Your task to perform on an android device: Open CNN.com Image 0: 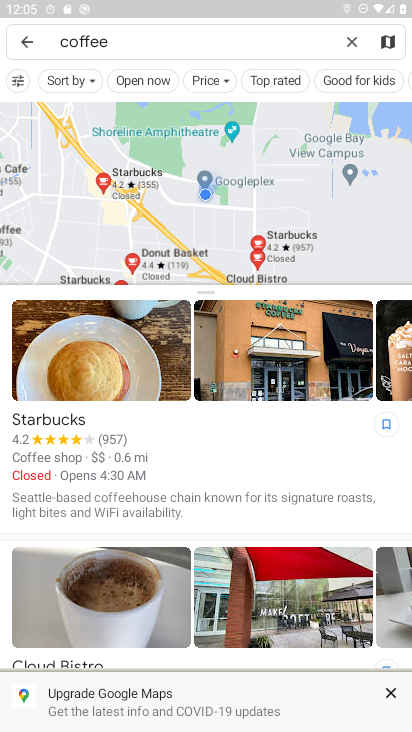
Step 0: press home button
Your task to perform on an android device: Open CNN.com Image 1: 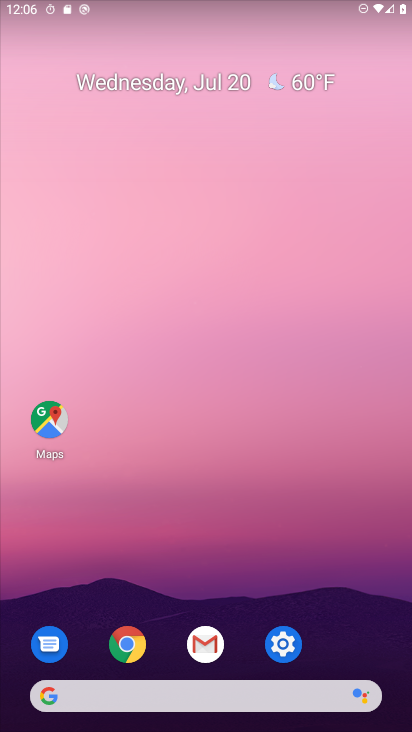
Step 1: click (140, 643)
Your task to perform on an android device: Open CNN.com Image 2: 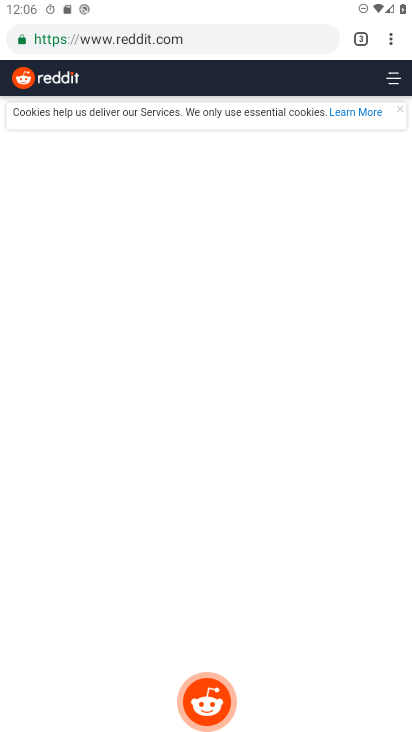
Step 2: click (175, 34)
Your task to perform on an android device: Open CNN.com Image 3: 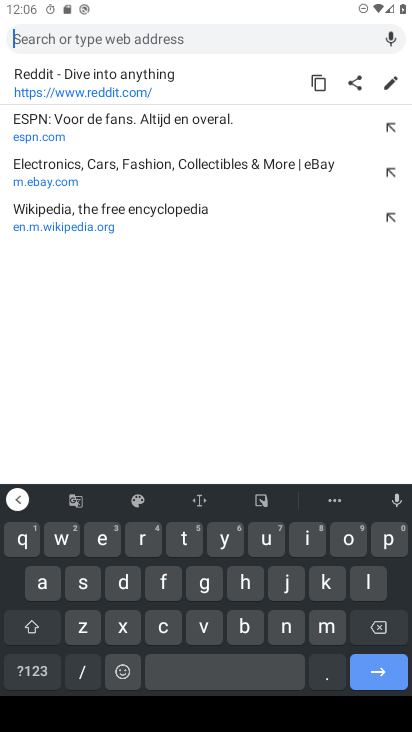
Step 3: click (155, 623)
Your task to perform on an android device: Open CNN.com Image 4: 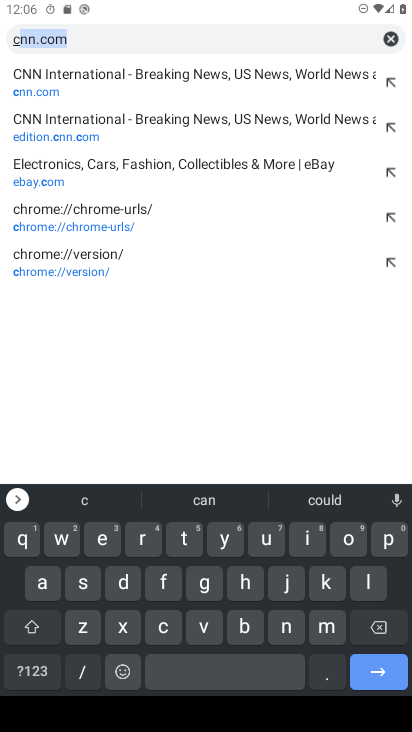
Step 4: click (123, 35)
Your task to perform on an android device: Open CNN.com Image 5: 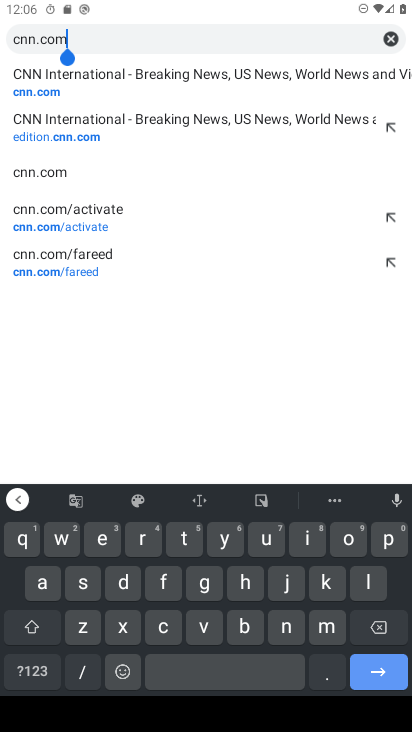
Step 5: click (382, 680)
Your task to perform on an android device: Open CNN.com Image 6: 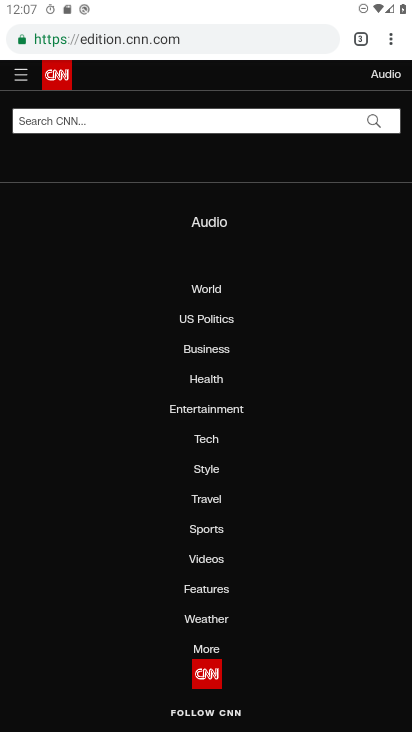
Step 6: task complete